Your task to perform on an android device: Is it going to rain this weekend? Image 0: 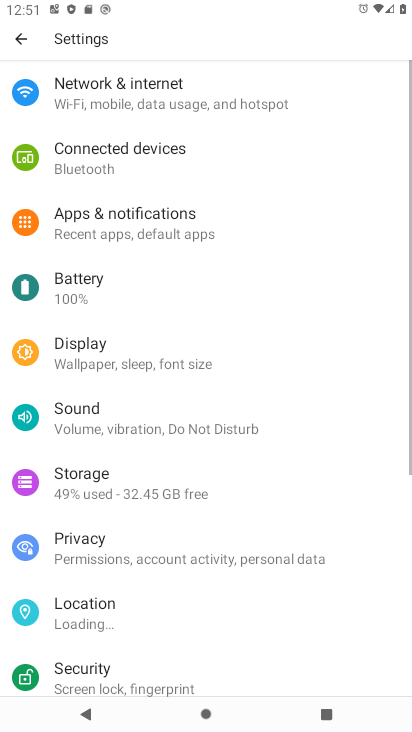
Step 0: press home button
Your task to perform on an android device: Is it going to rain this weekend? Image 1: 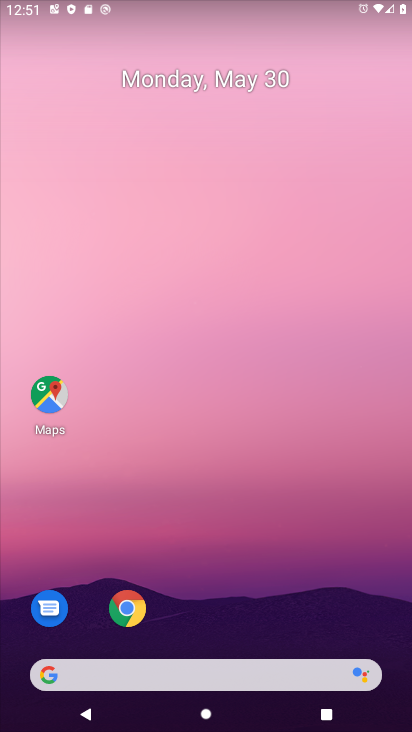
Step 1: click (163, 664)
Your task to perform on an android device: Is it going to rain this weekend? Image 2: 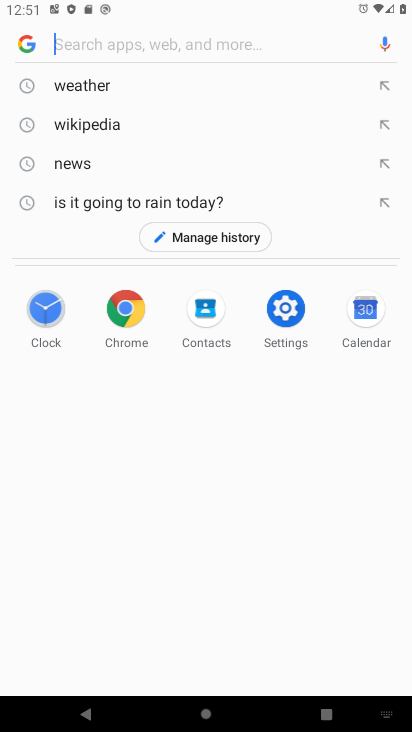
Step 2: click (62, 83)
Your task to perform on an android device: Is it going to rain this weekend? Image 3: 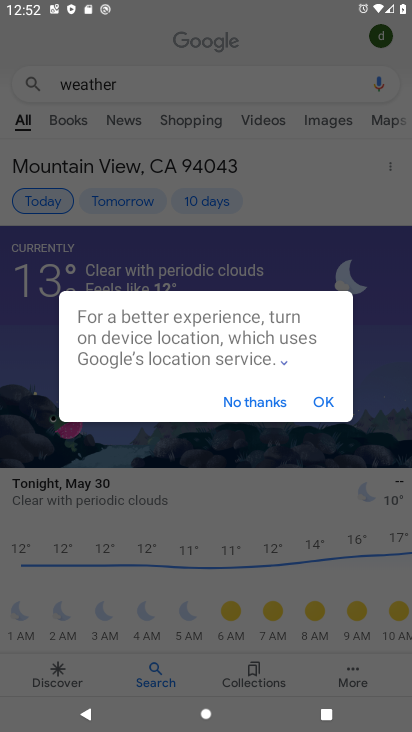
Step 3: click (251, 402)
Your task to perform on an android device: Is it going to rain this weekend? Image 4: 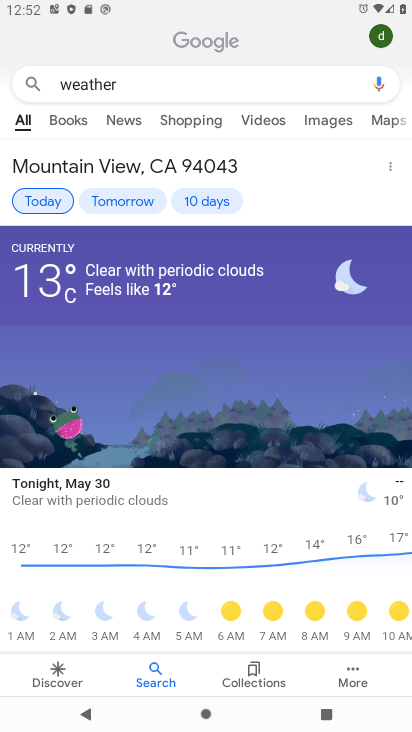
Step 4: click (220, 201)
Your task to perform on an android device: Is it going to rain this weekend? Image 5: 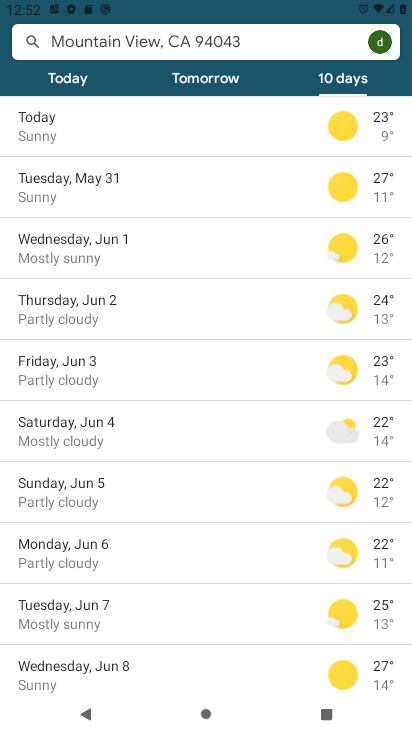
Step 5: task complete